Your task to perform on an android device: open a new tab in the chrome app Image 0: 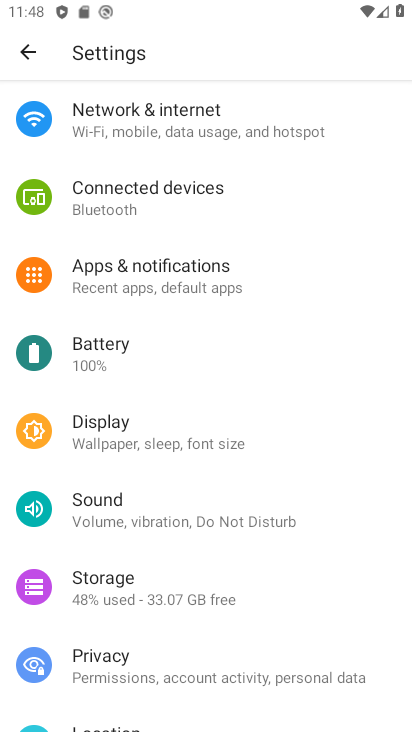
Step 0: drag from (295, 525) to (298, 473)
Your task to perform on an android device: open a new tab in the chrome app Image 1: 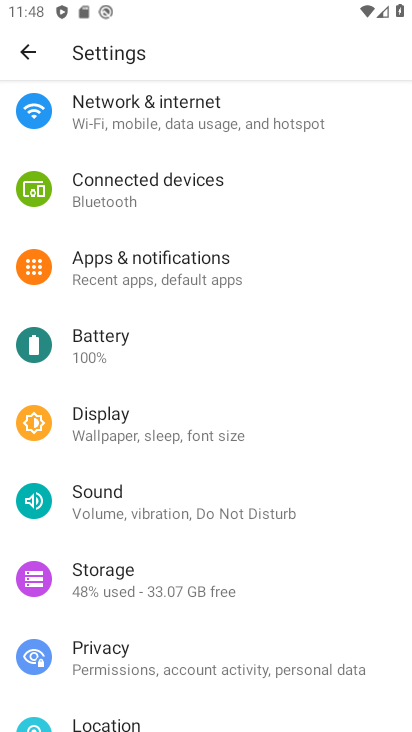
Step 1: press home button
Your task to perform on an android device: open a new tab in the chrome app Image 2: 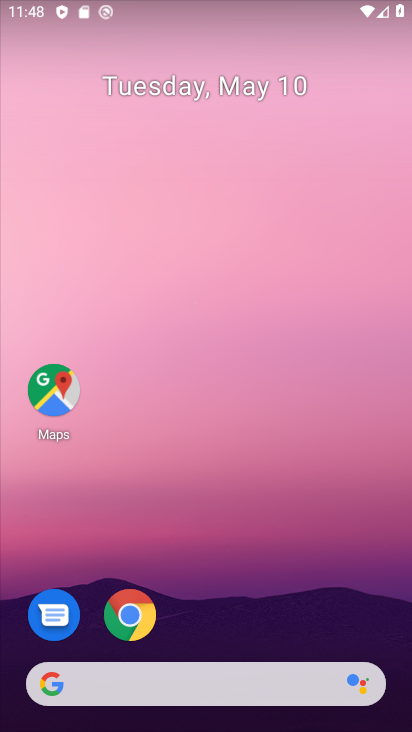
Step 2: click (137, 616)
Your task to perform on an android device: open a new tab in the chrome app Image 3: 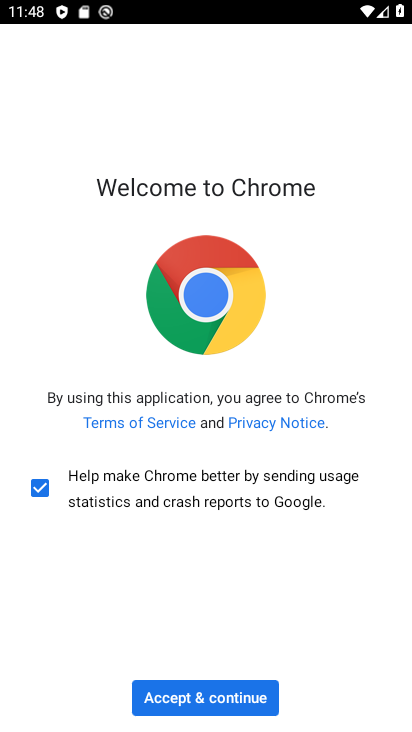
Step 3: click (202, 687)
Your task to perform on an android device: open a new tab in the chrome app Image 4: 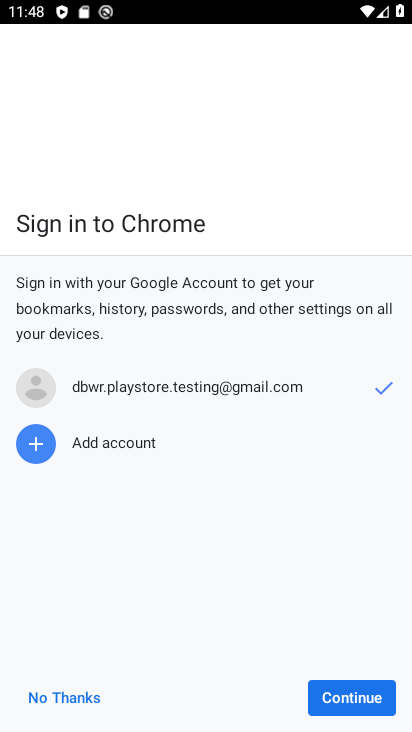
Step 4: click (333, 702)
Your task to perform on an android device: open a new tab in the chrome app Image 5: 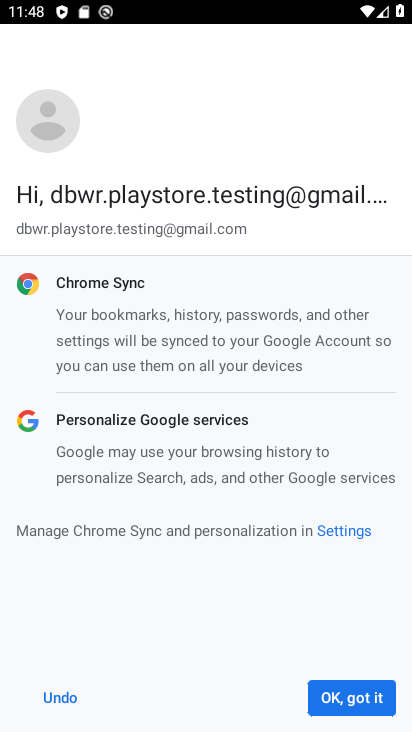
Step 5: click (333, 702)
Your task to perform on an android device: open a new tab in the chrome app Image 6: 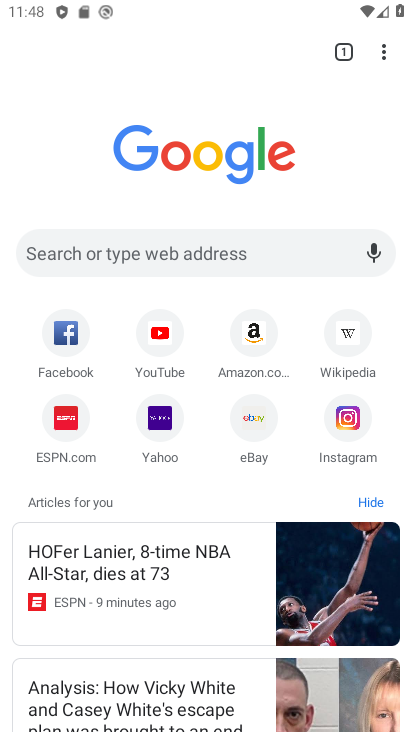
Step 6: click (340, 50)
Your task to perform on an android device: open a new tab in the chrome app Image 7: 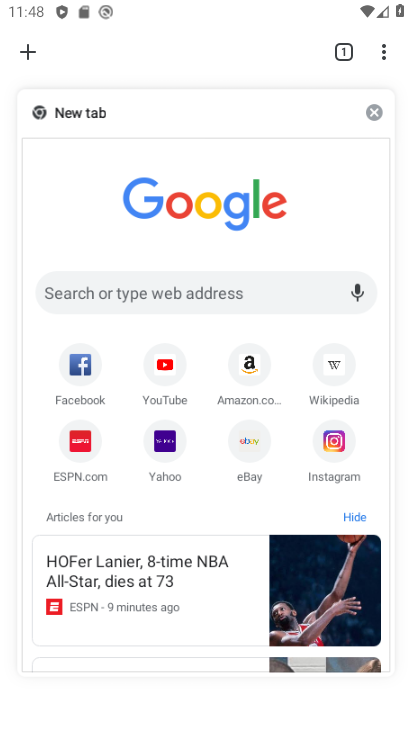
Step 7: click (29, 52)
Your task to perform on an android device: open a new tab in the chrome app Image 8: 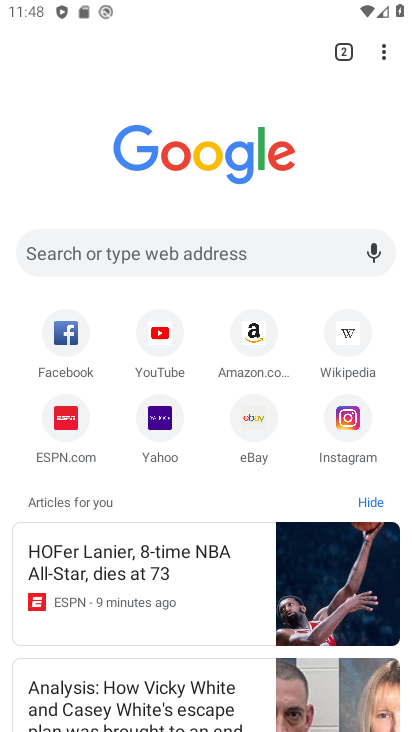
Step 8: task complete